Your task to perform on an android device: Open settings on Google Maps Image 0: 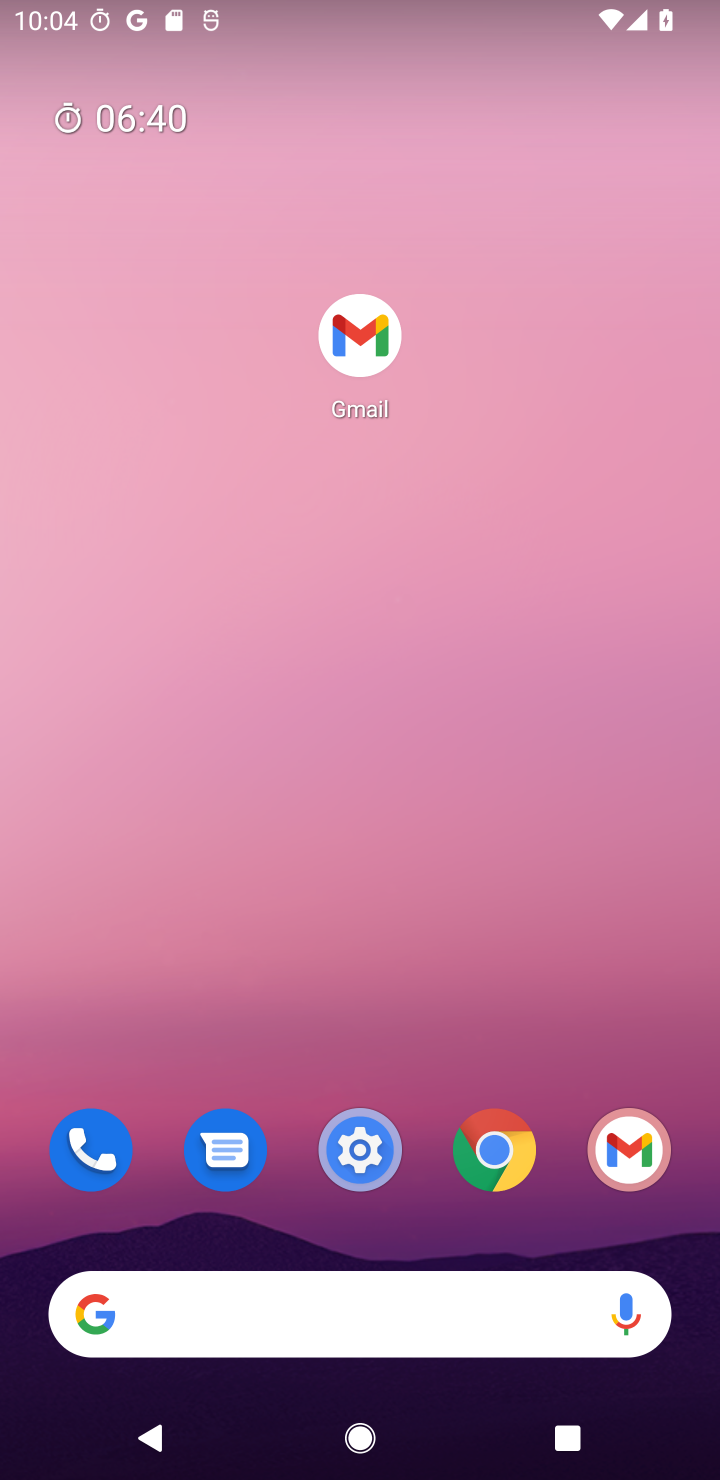
Step 0: drag from (369, 1285) to (229, 342)
Your task to perform on an android device: Open settings on Google Maps Image 1: 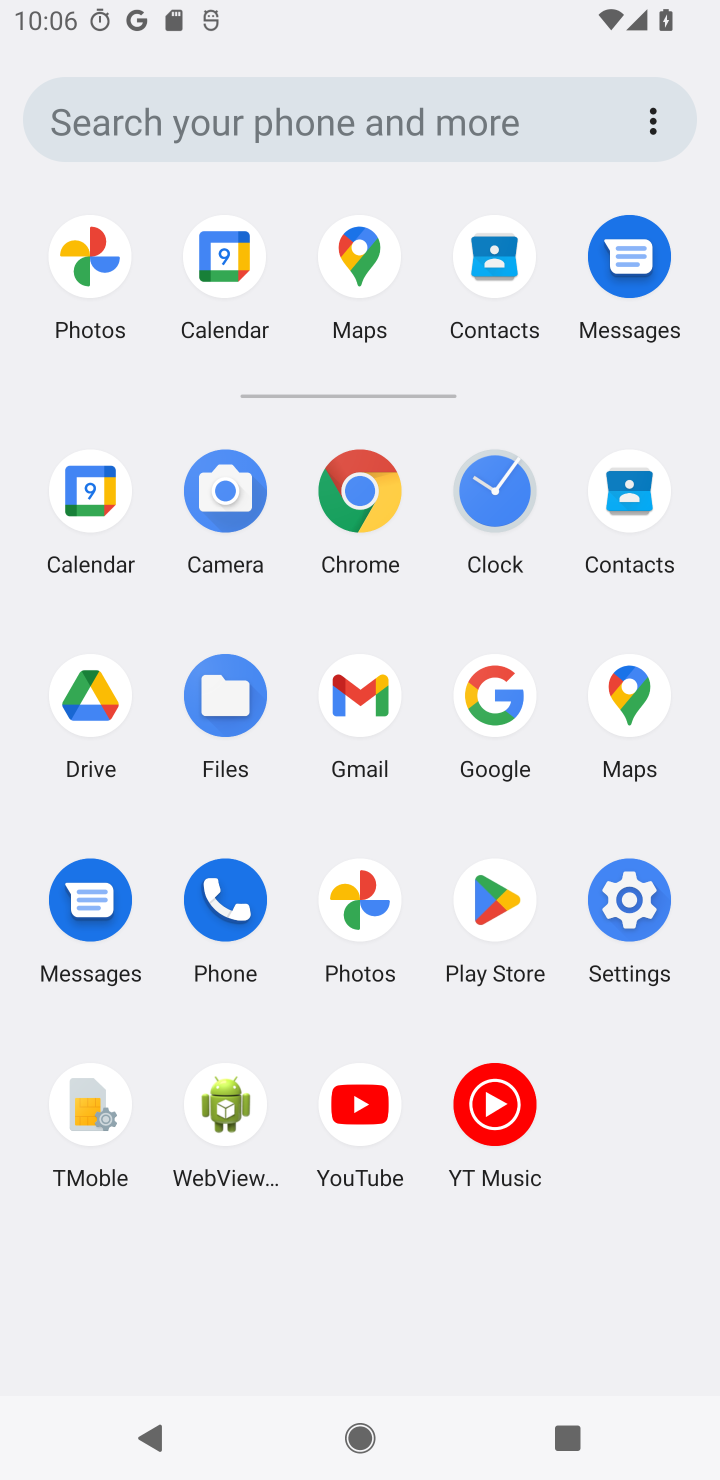
Step 1: click (620, 695)
Your task to perform on an android device: Open settings on Google Maps Image 2: 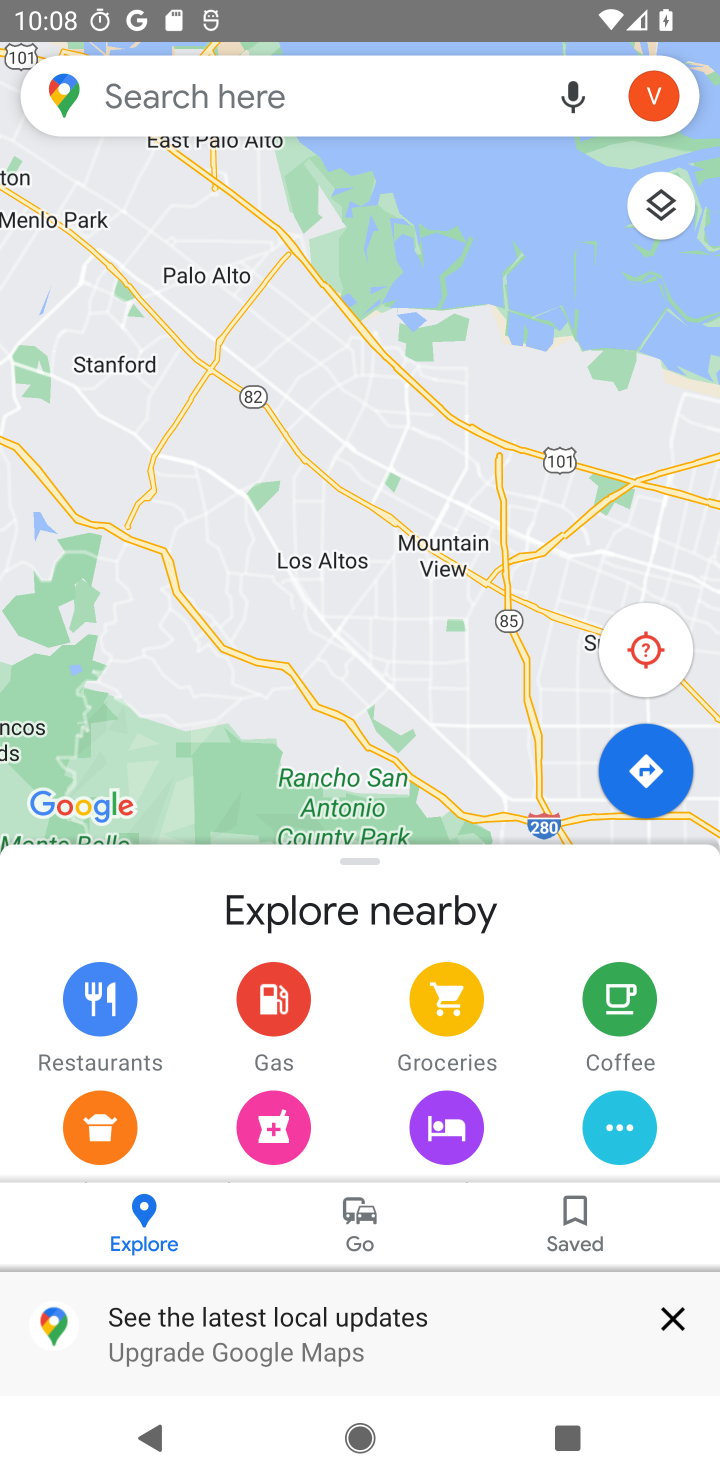
Step 2: click (653, 113)
Your task to perform on an android device: Open settings on Google Maps Image 3: 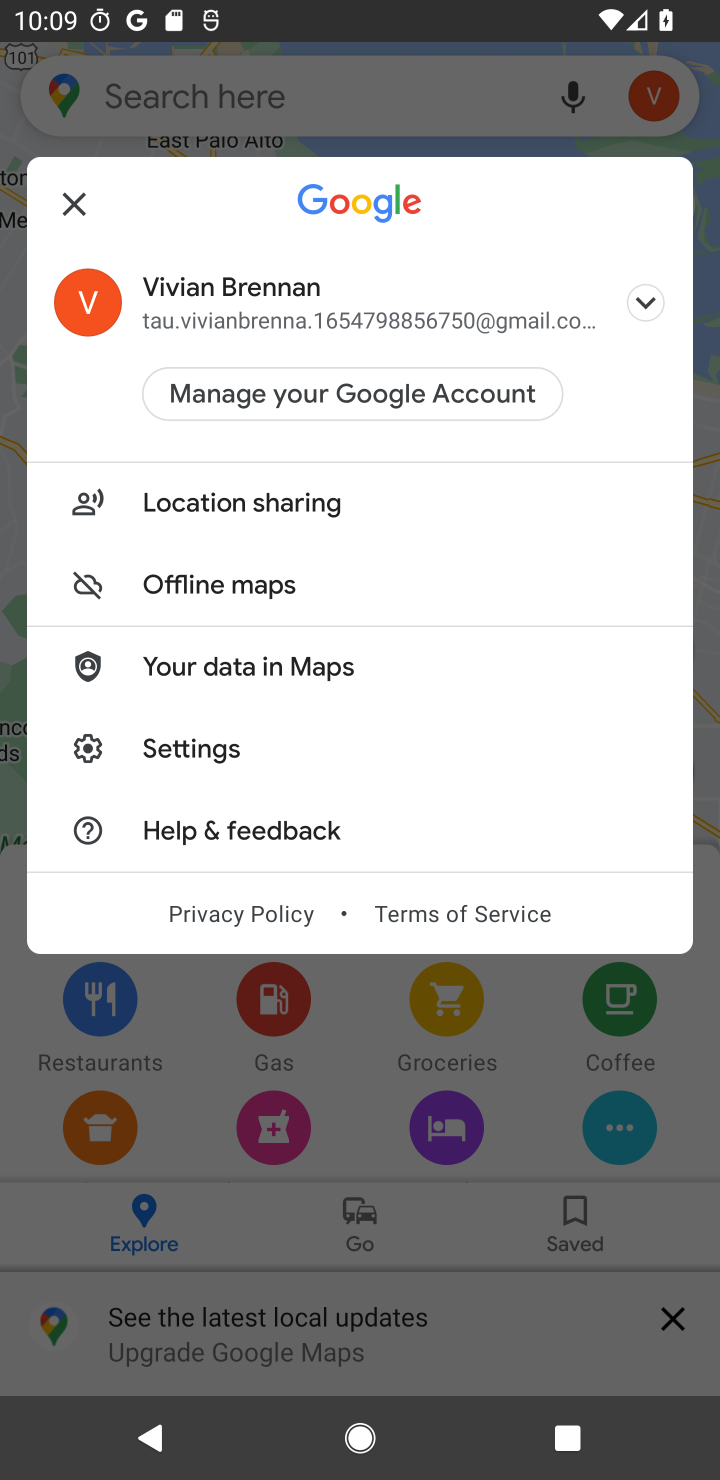
Step 3: click (167, 751)
Your task to perform on an android device: Open settings on Google Maps Image 4: 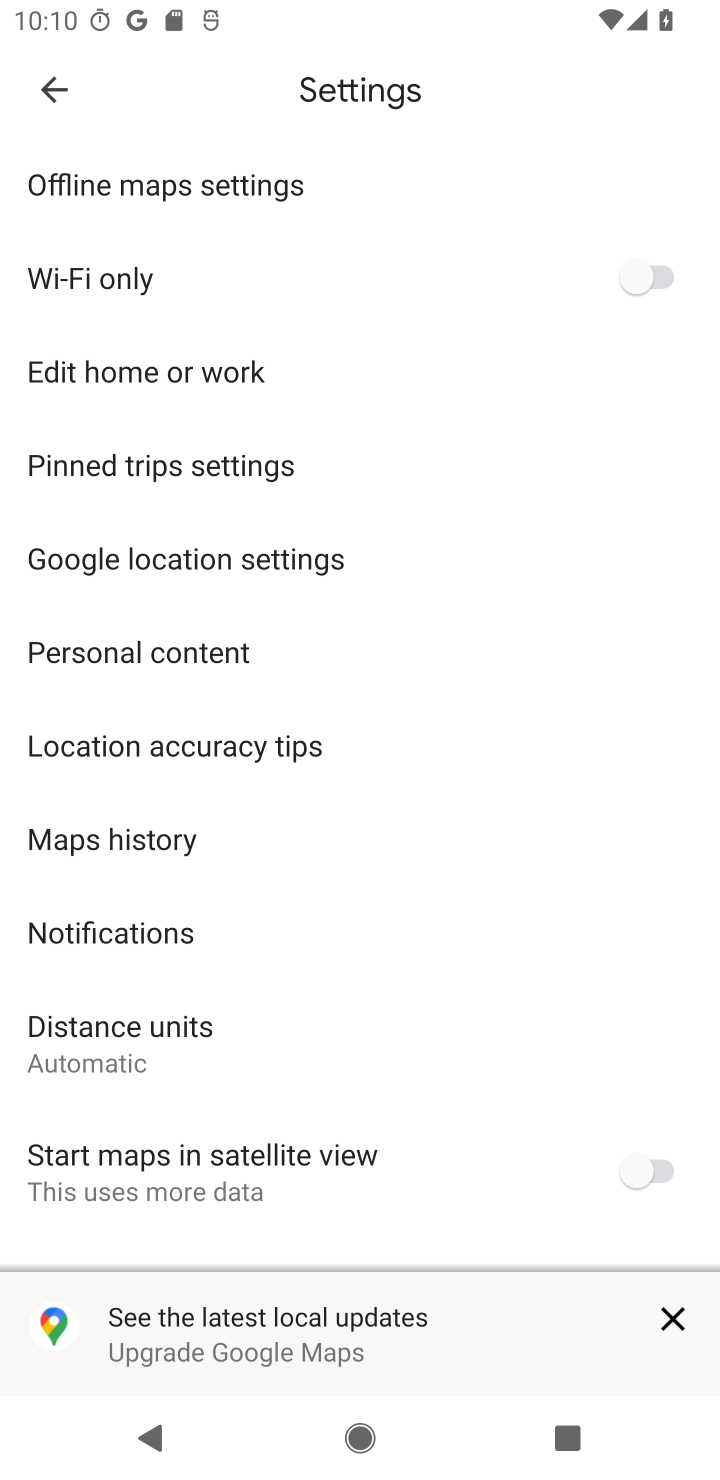
Step 4: task complete